Your task to perform on an android device: Search for vegetarian restaurants on Maps Image 0: 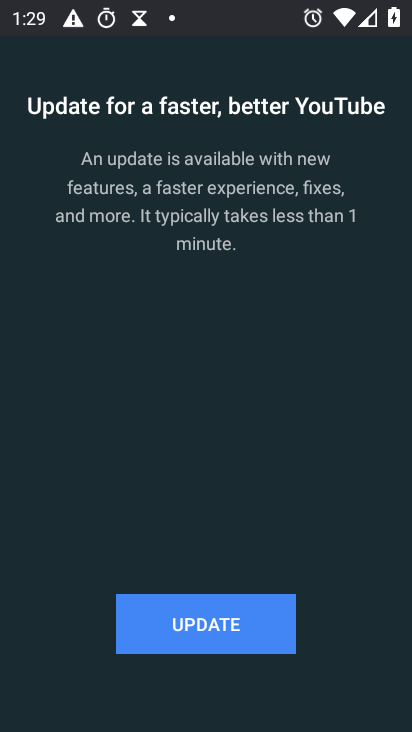
Step 0: press home button
Your task to perform on an android device: Search for vegetarian restaurants on Maps Image 1: 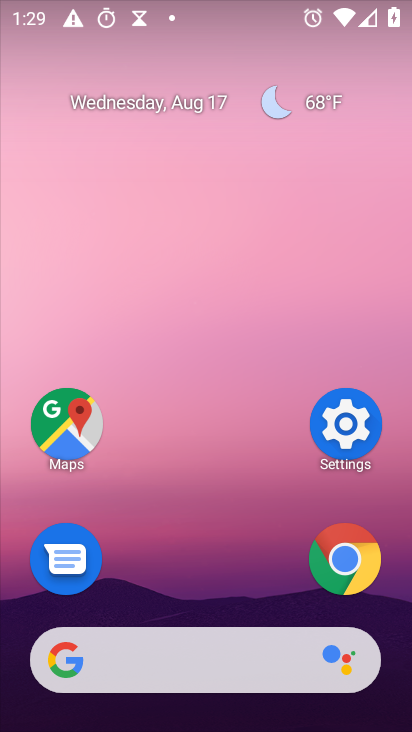
Step 1: click (61, 426)
Your task to perform on an android device: Search for vegetarian restaurants on Maps Image 2: 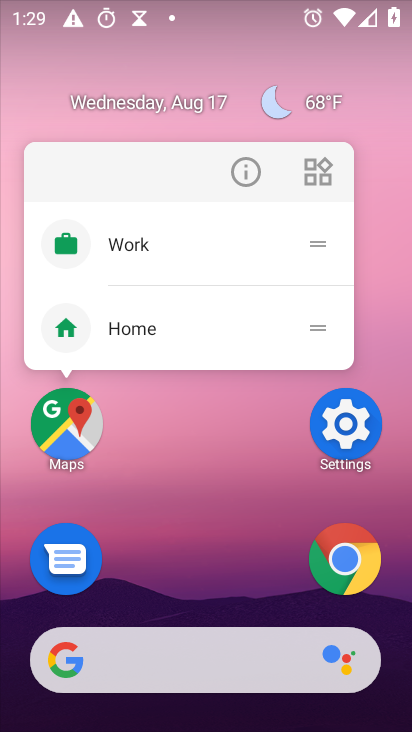
Step 2: click (78, 443)
Your task to perform on an android device: Search for vegetarian restaurants on Maps Image 3: 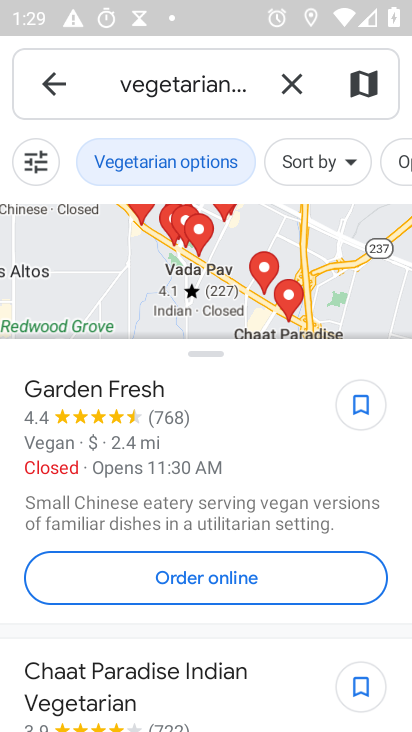
Step 3: task complete